Your task to perform on an android device: Show me popular videos on Youtube Image 0: 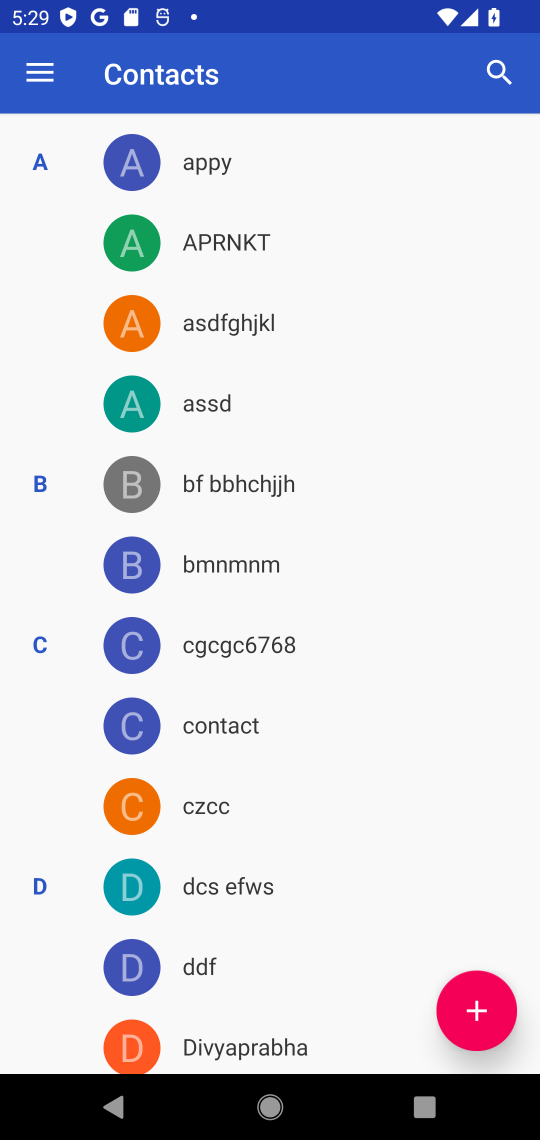
Step 0: press home button
Your task to perform on an android device: Show me popular videos on Youtube Image 1: 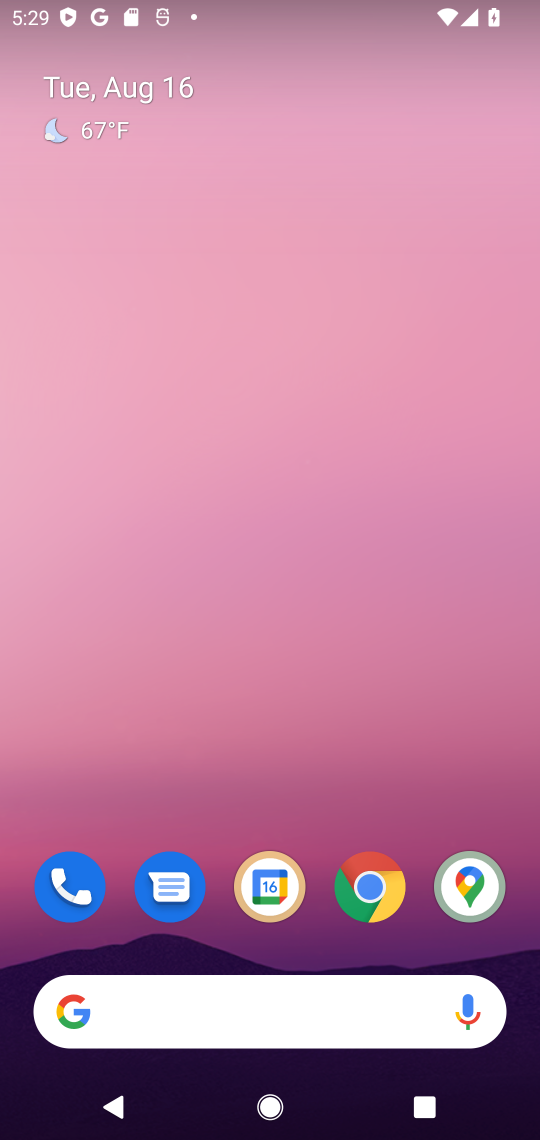
Step 1: drag from (396, 745) to (415, 4)
Your task to perform on an android device: Show me popular videos on Youtube Image 2: 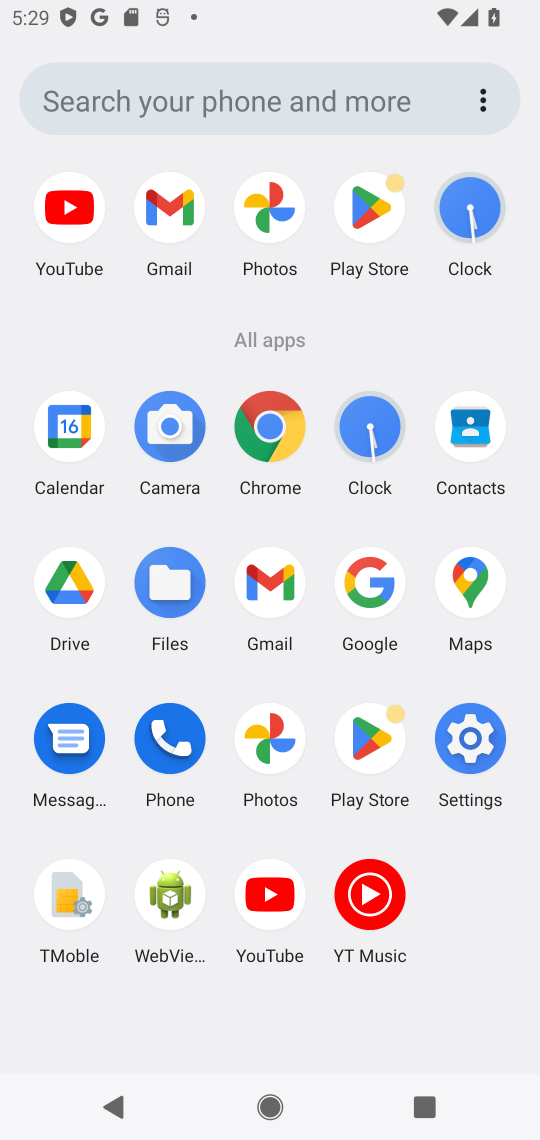
Step 2: click (264, 898)
Your task to perform on an android device: Show me popular videos on Youtube Image 3: 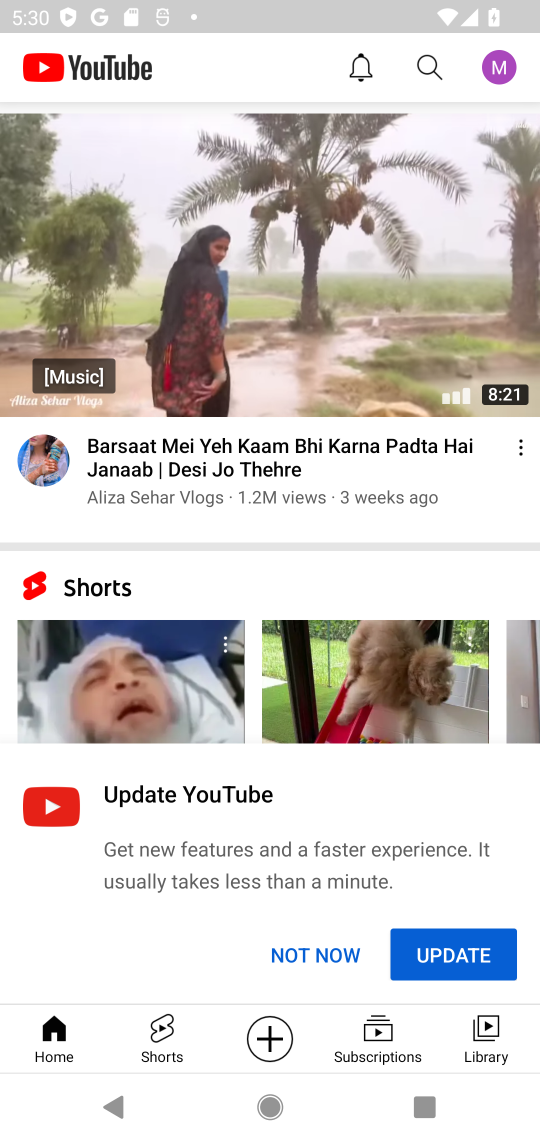
Step 3: drag from (121, 186) to (158, 952)
Your task to perform on an android device: Show me popular videos on Youtube Image 4: 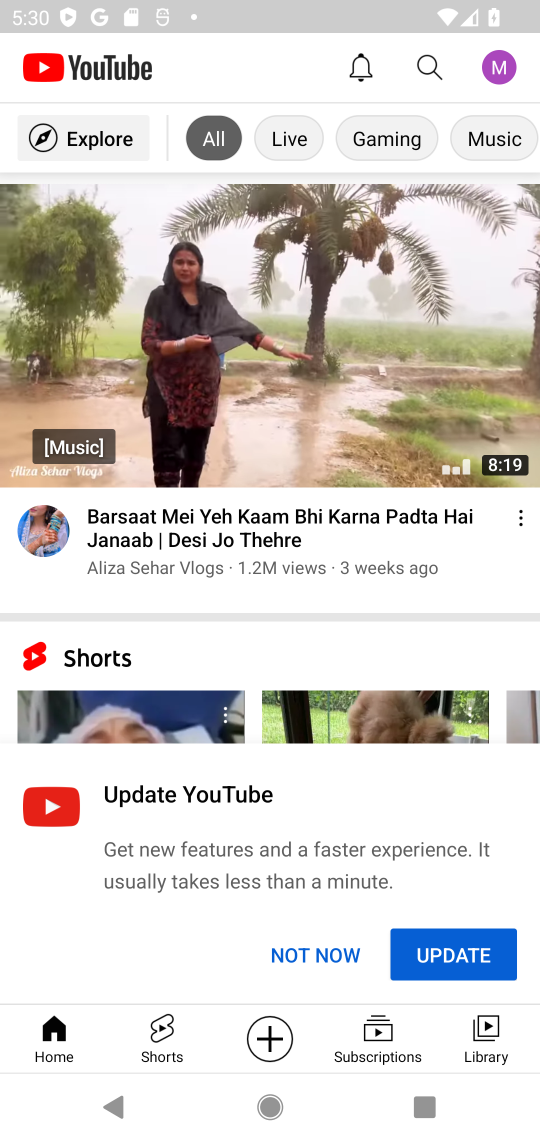
Step 4: click (77, 133)
Your task to perform on an android device: Show me popular videos on Youtube Image 5: 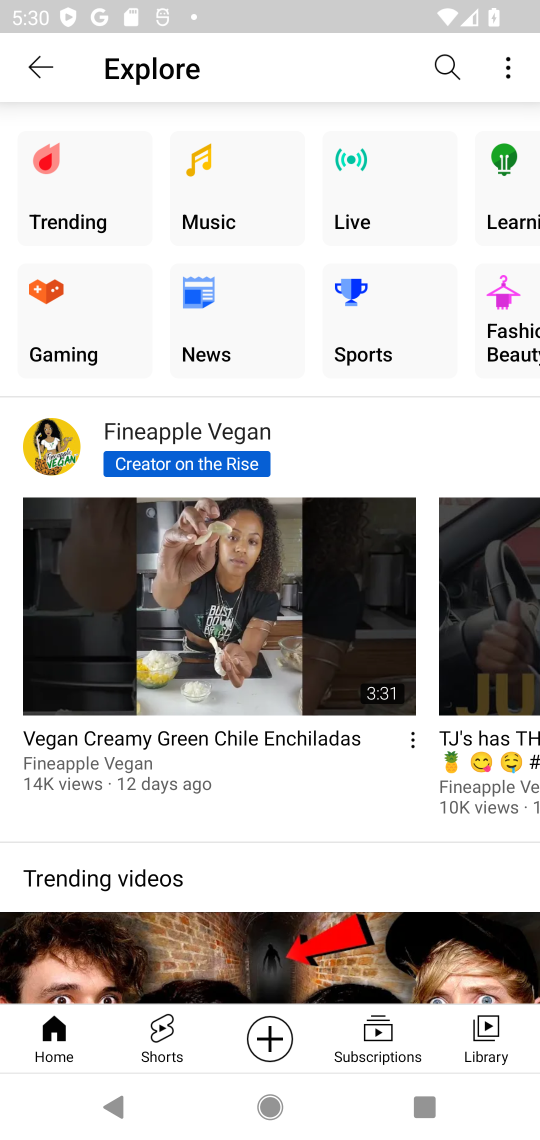
Step 5: task complete